Your task to perform on an android device: Go to settings Image 0: 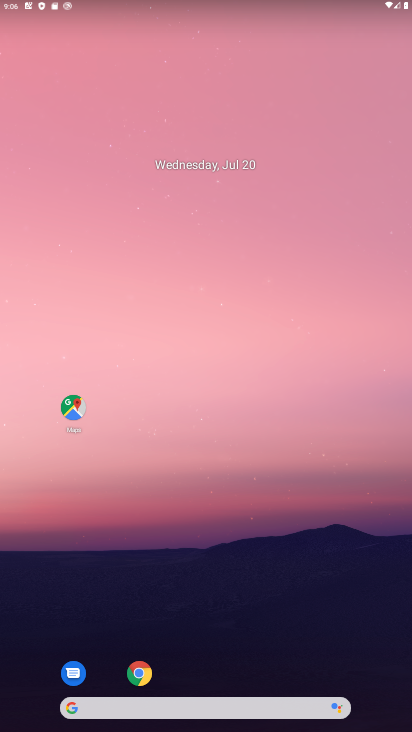
Step 0: drag from (177, 639) to (214, 200)
Your task to perform on an android device: Go to settings Image 1: 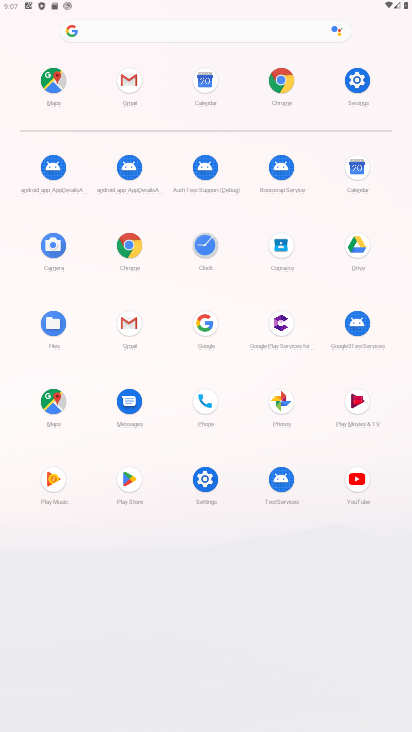
Step 1: click (203, 482)
Your task to perform on an android device: Go to settings Image 2: 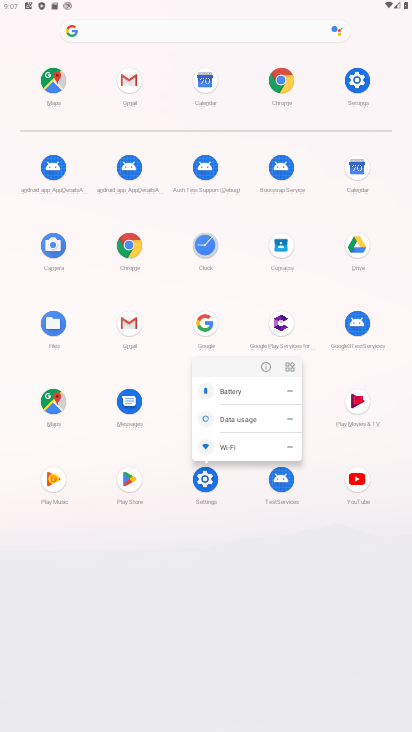
Step 2: click (266, 366)
Your task to perform on an android device: Go to settings Image 3: 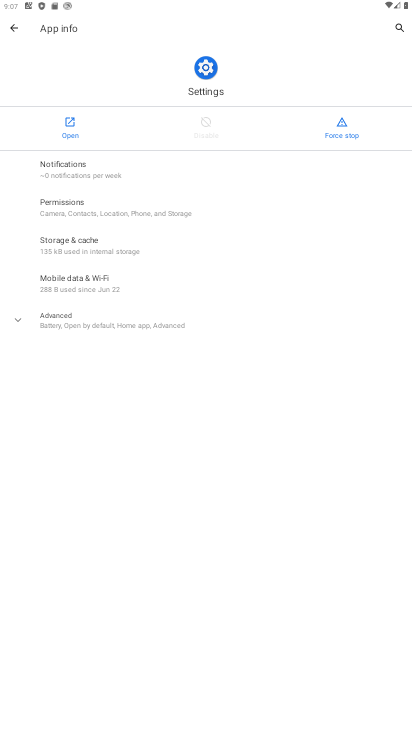
Step 3: click (62, 119)
Your task to perform on an android device: Go to settings Image 4: 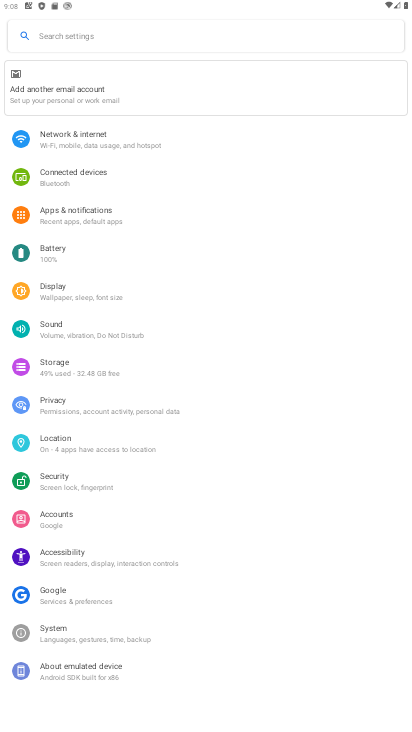
Step 4: task complete